Your task to perform on an android device: turn on location history Image 0: 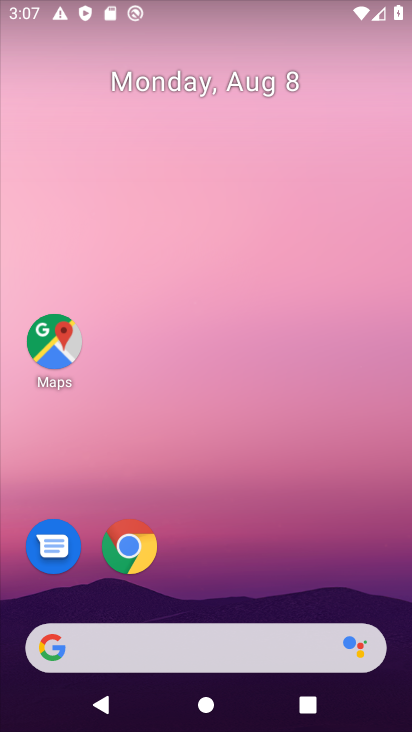
Step 0: drag from (151, 589) to (158, 141)
Your task to perform on an android device: turn on location history Image 1: 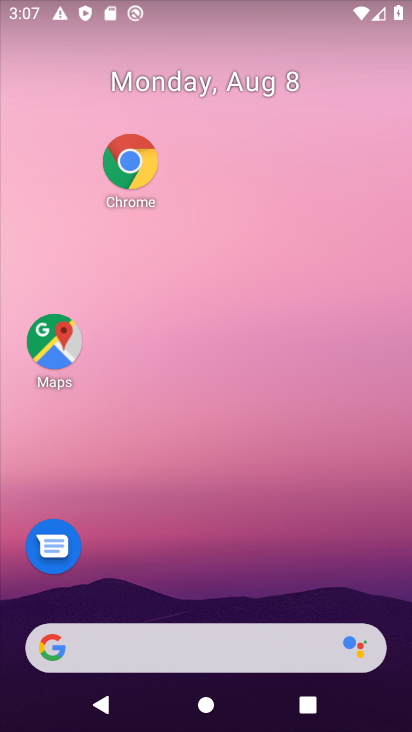
Step 1: drag from (231, 578) to (206, 9)
Your task to perform on an android device: turn on location history Image 2: 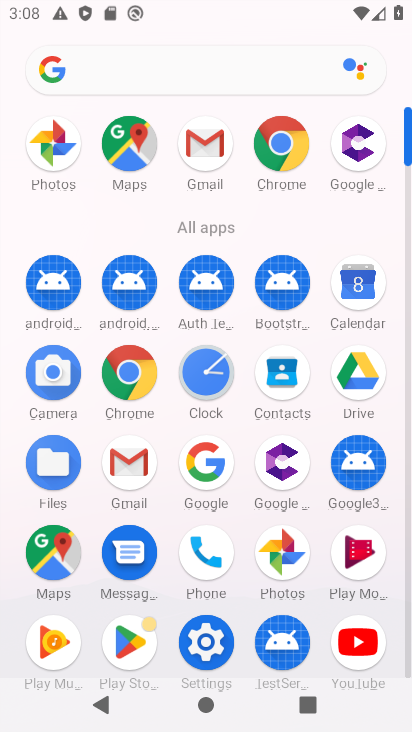
Step 2: click (207, 645)
Your task to perform on an android device: turn on location history Image 3: 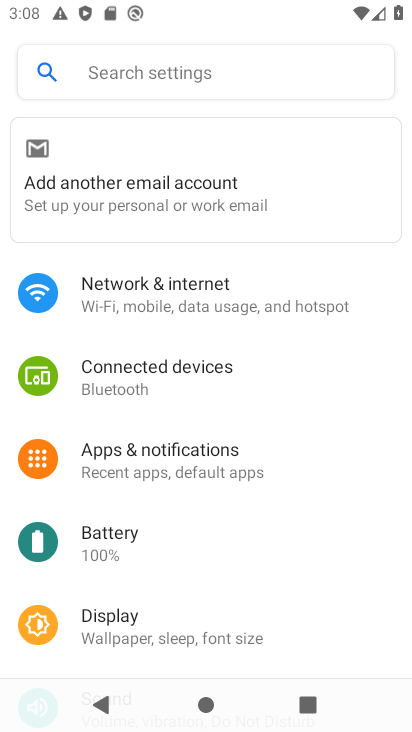
Step 3: drag from (133, 593) to (130, 120)
Your task to perform on an android device: turn on location history Image 4: 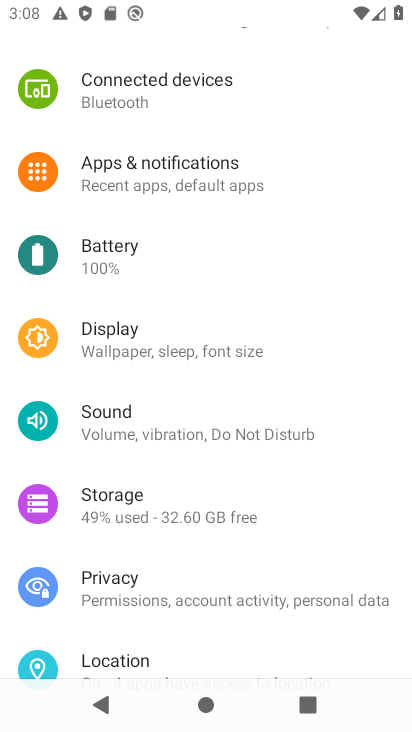
Step 4: click (118, 671)
Your task to perform on an android device: turn on location history Image 5: 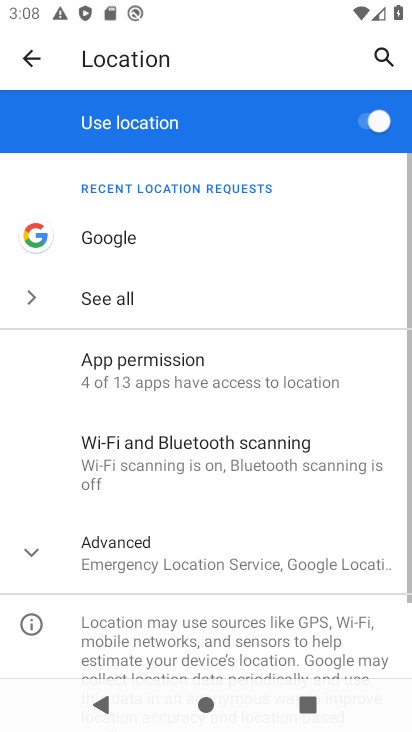
Step 5: click (161, 553)
Your task to perform on an android device: turn on location history Image 6: 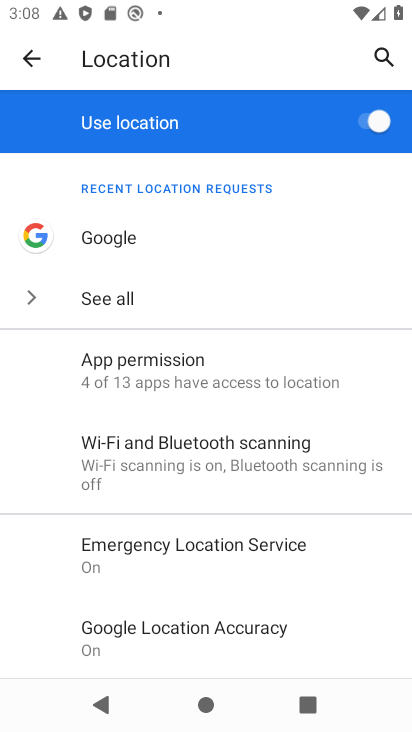
Step 6: drag from (230, 630) to (214, 174)
Your task to perform on an android device: turn on location history Image 7: 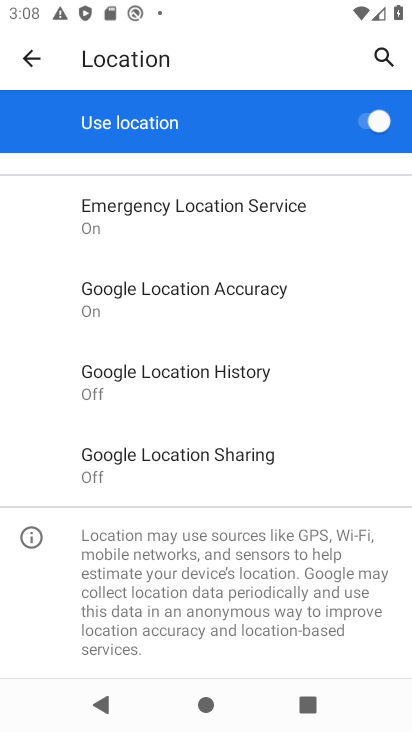
Step 7: drag from (214, 647) to (193, 301)
Your task to perform on an android device: turn on location history Image 8: 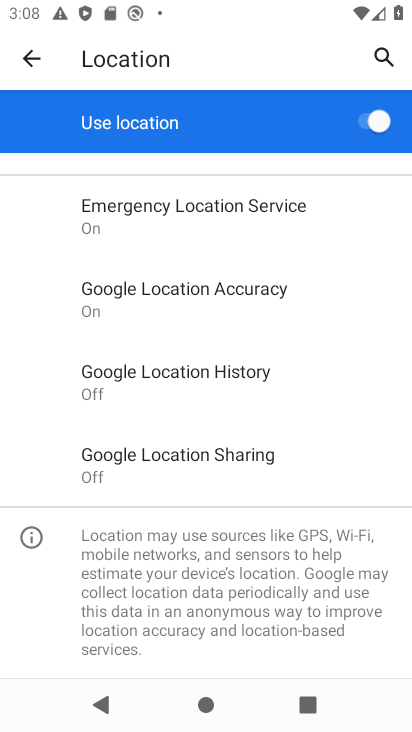
Step 8: click (181, 508)
Your task to perform on an android device: turn on location history Image 9: 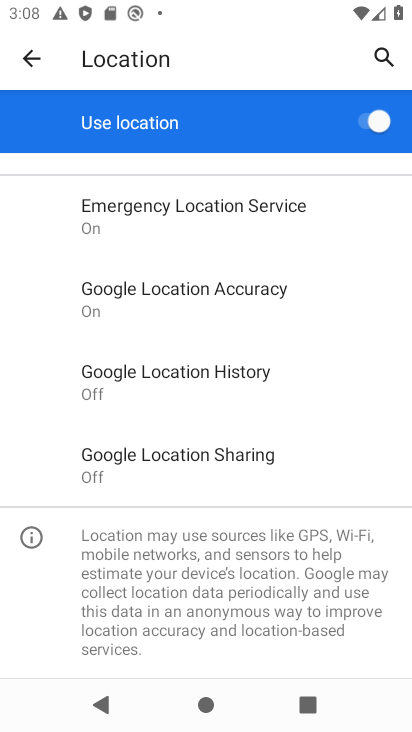
Step 9: click (158, 368)
Your task to perform on an android device: turn on location history Image 10: 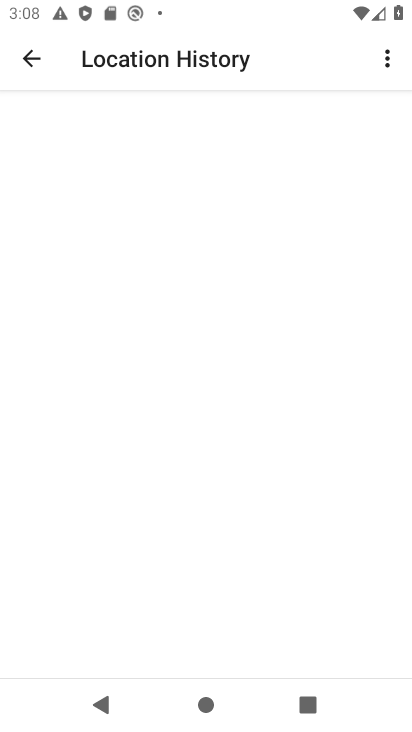
Step 10: click (134, 381)
Your task to perform on an android device: turn on location history Image 11: 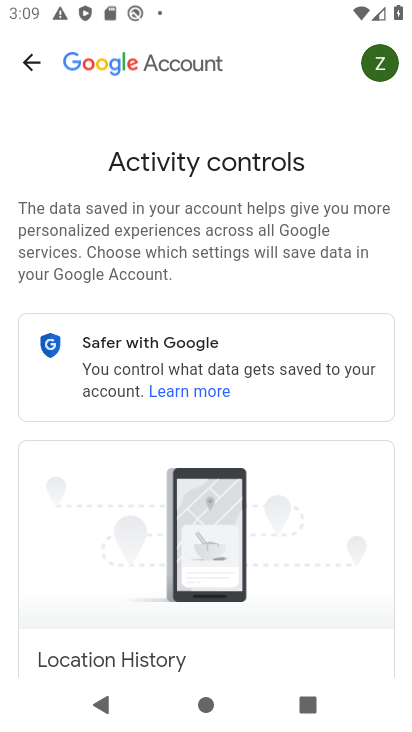
Step 11: drag from (148, 511) to (144, 240)
Your task to perform on an android device: turn on location history Image 12: 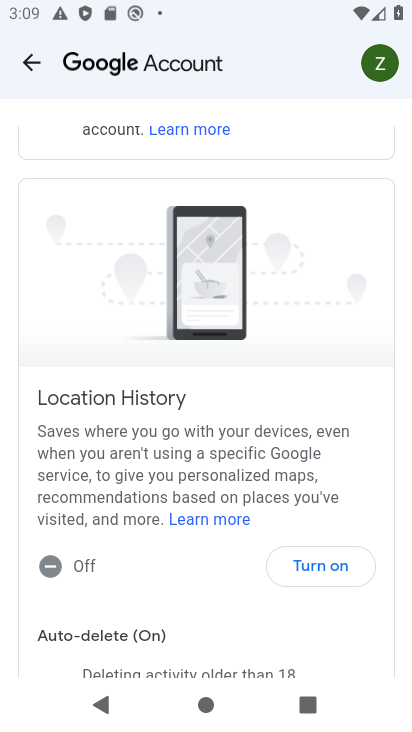
Step 12: drag from (270, 638) to (232, 313)
Your task to perform on an android device: turn on location history Image 13: 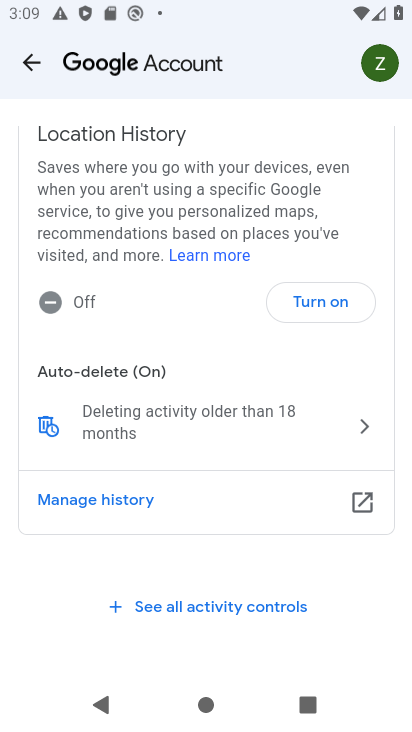
Step 13: click (303, 299)
Your task to perform on an android device: turn on location history Image 14: 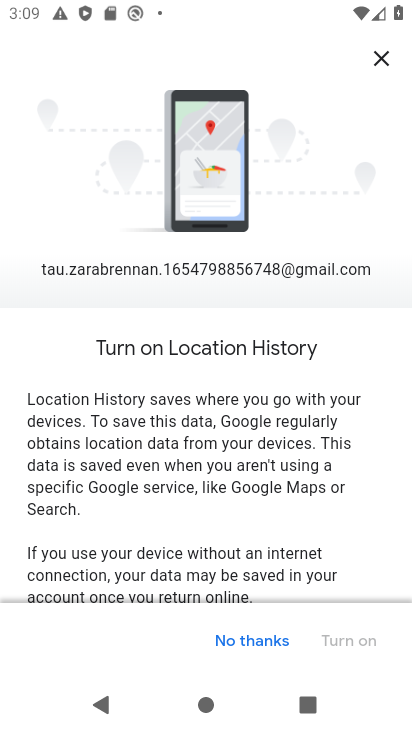
Step 14: drag from (238, 571) to (224, 192)
Your task to perform on an android device: turn on location history Image 15: 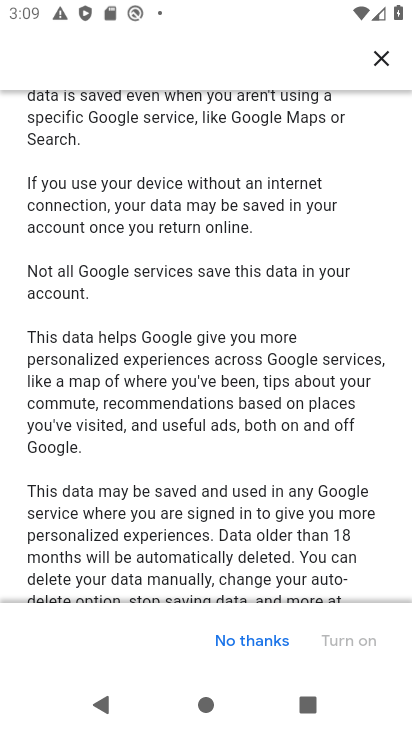
Step 15: drag from (225, 485) to (189, 172)
Your task to perform on an android device: turn on location history Image 16: 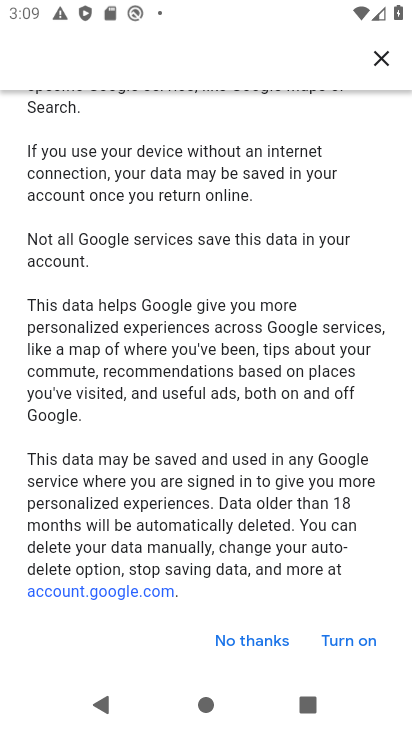
Step 16: drag from (250, 507) to (260, 265)
Your task to perform on an android device: turn on location history Image 17: 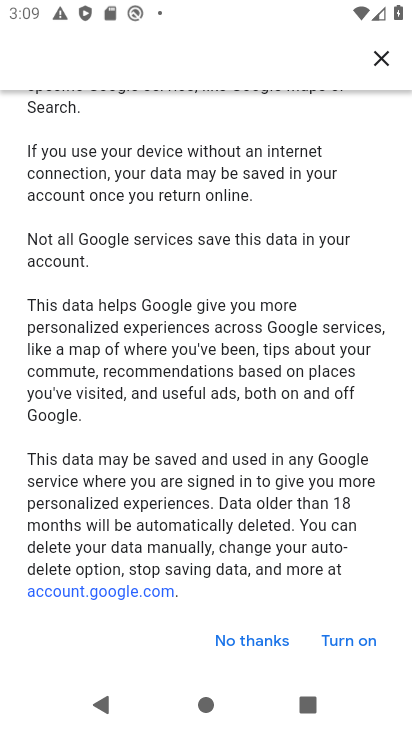
Step 17: click (336, 635)
Your task to perform on an android device: turn on location history Image 18: 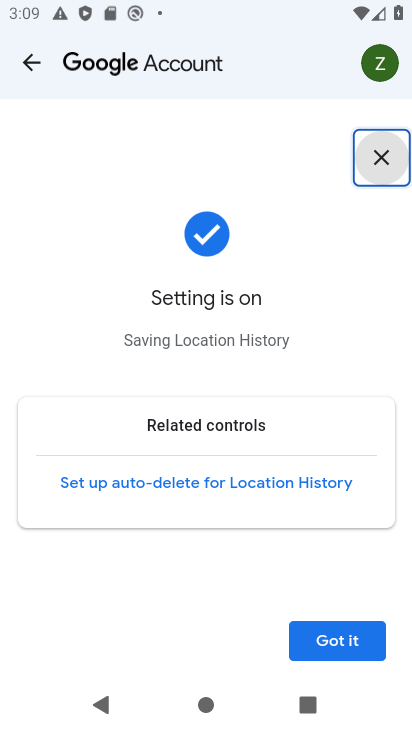
Step 18: click (336, 635)
Your task to perform on an android device: turn on location history Image 19: 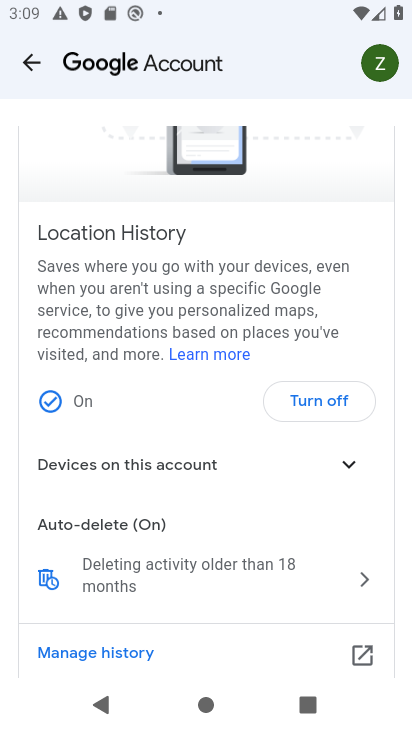
Step 19: task complete